Your task to perform on an android device: toggle translation in the chrome app Image 0: 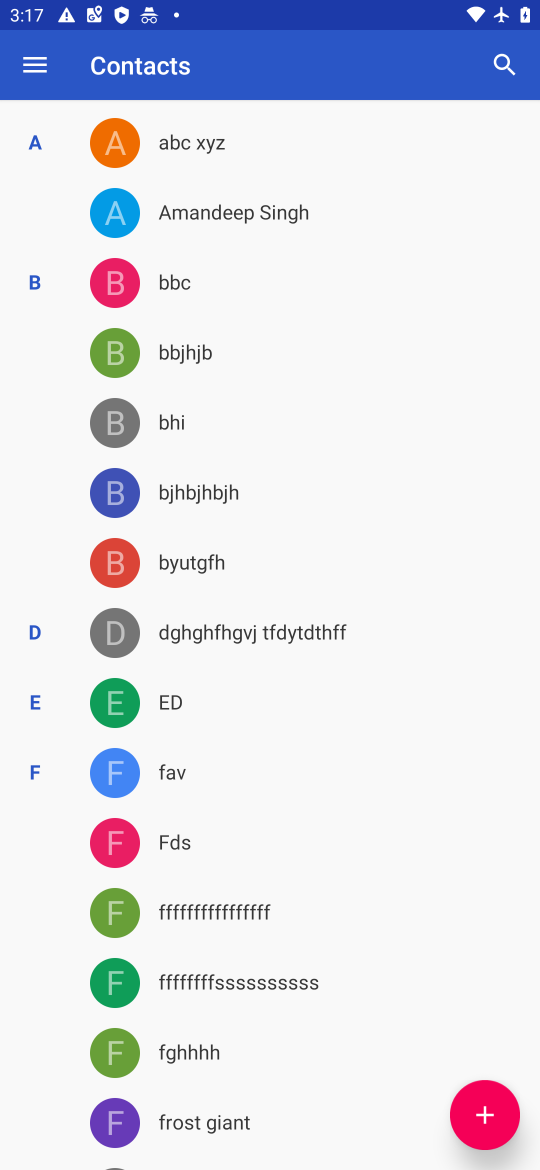
Step 0: press back button
Your task to perform on an android device: toggle translation in the chrome app Image 1: 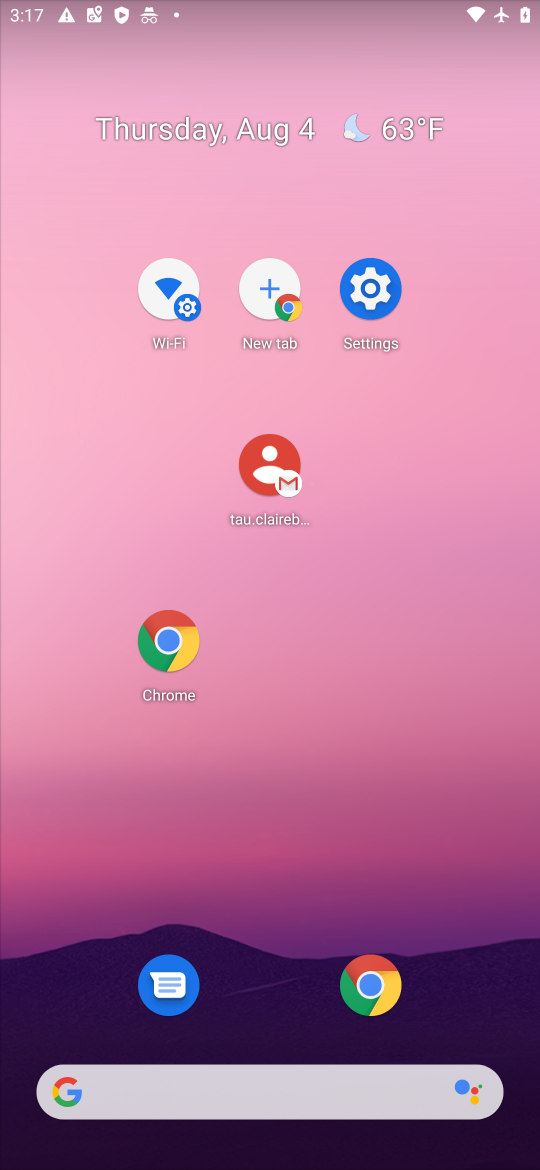
Step 1: press home button
Your task to perform on an android device: toggle translation in the chrome app Image 2: 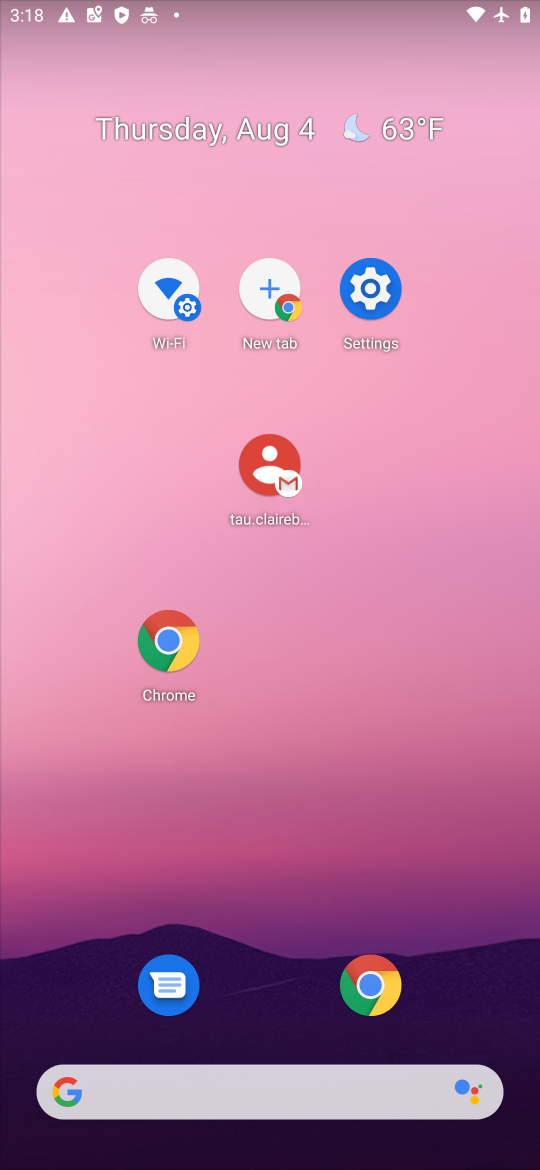
Step 2: drag from (256, 501) to (239, 263)
Your task to perform on an android device: toggle translation in the chrome app Image 3: 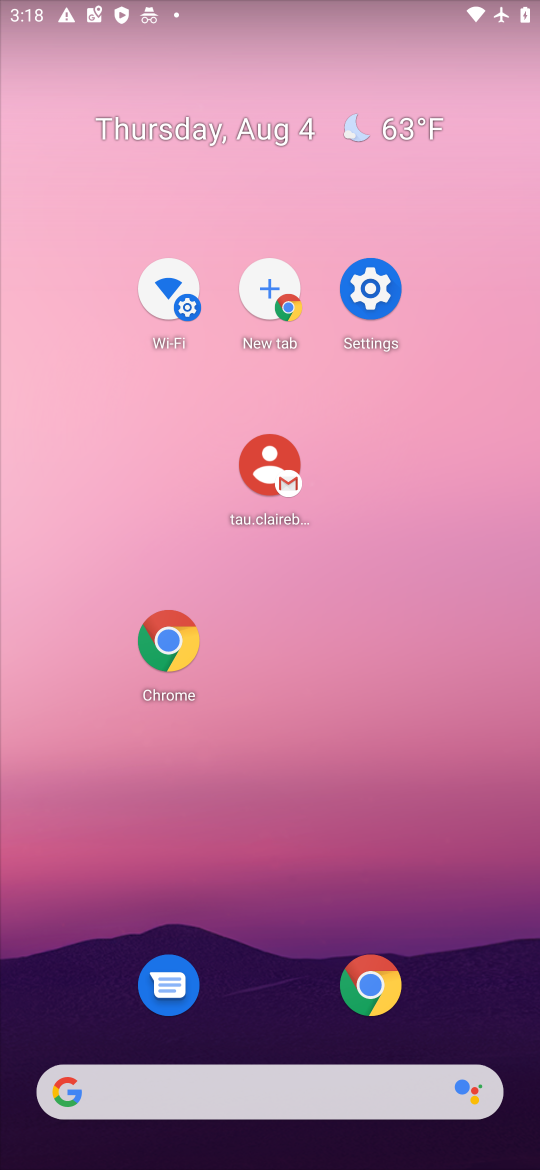
Step 3: drag from (177, 765) to (180, 530)
Your task to perform on an android device: toggle translation in the chrome app Image 4: 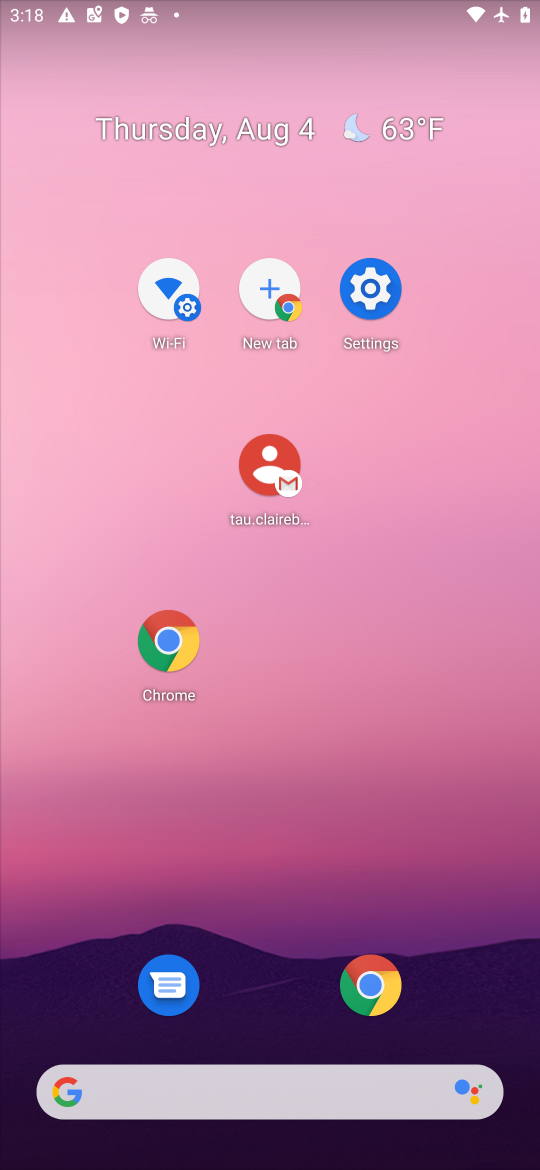
Step 4: drag from (336, 1007) to (315, 196)
Your task to perform on an android device: toggle translation in the chrome app Image 5: 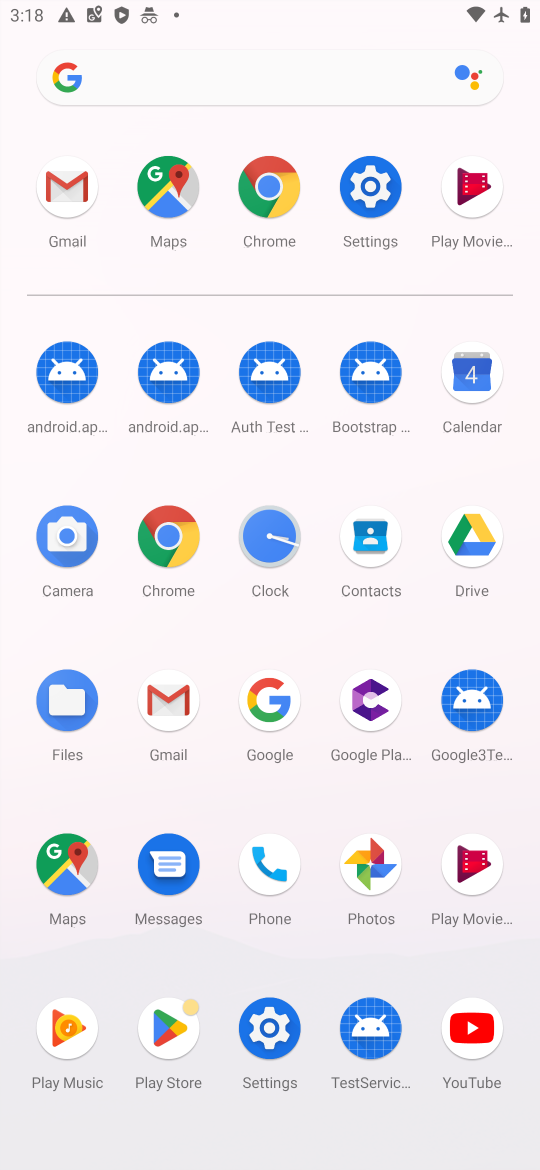
Step 5: click (279, 177)
Your task to perform on an android device: toggle translation in the chrome app Image 6: 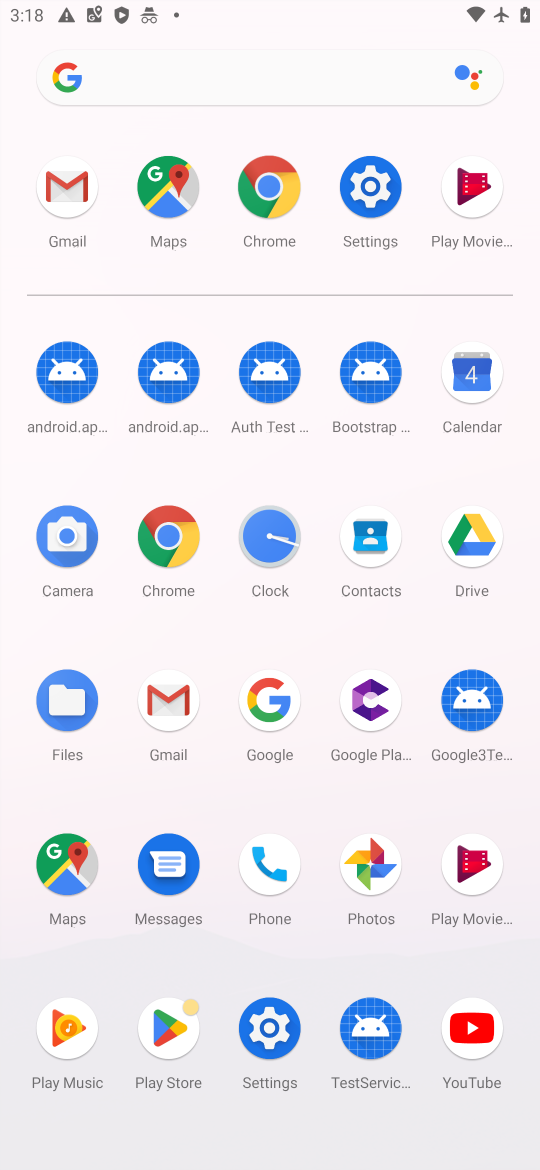
Step 6: click (278, 177)
Your task to perform on an android device: toggle translation in the chrome app Image 7: 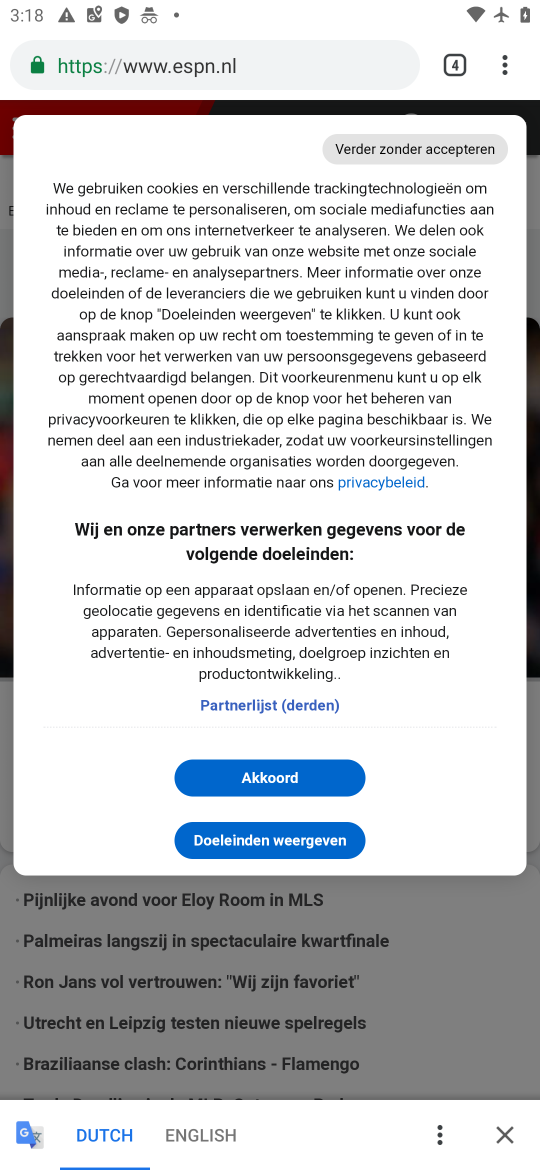
Step 7: press back button
Your task to perform on an android device: toggle translation in the chrome app Image 8: 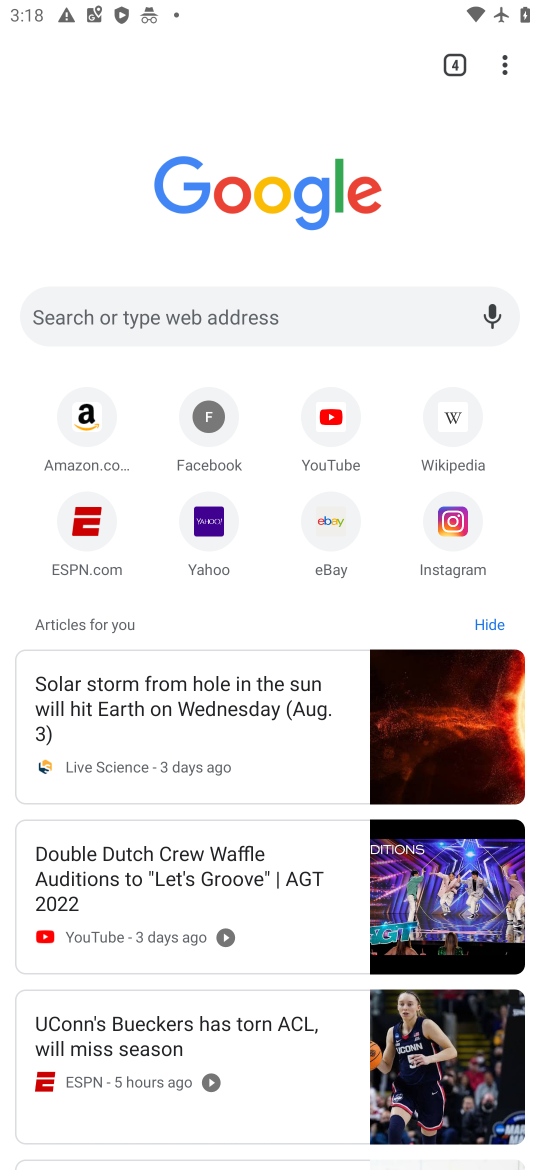
Step 8: click (498, 79)
Your task to perform on an android device: toggle translation in the chrome app Image 9: 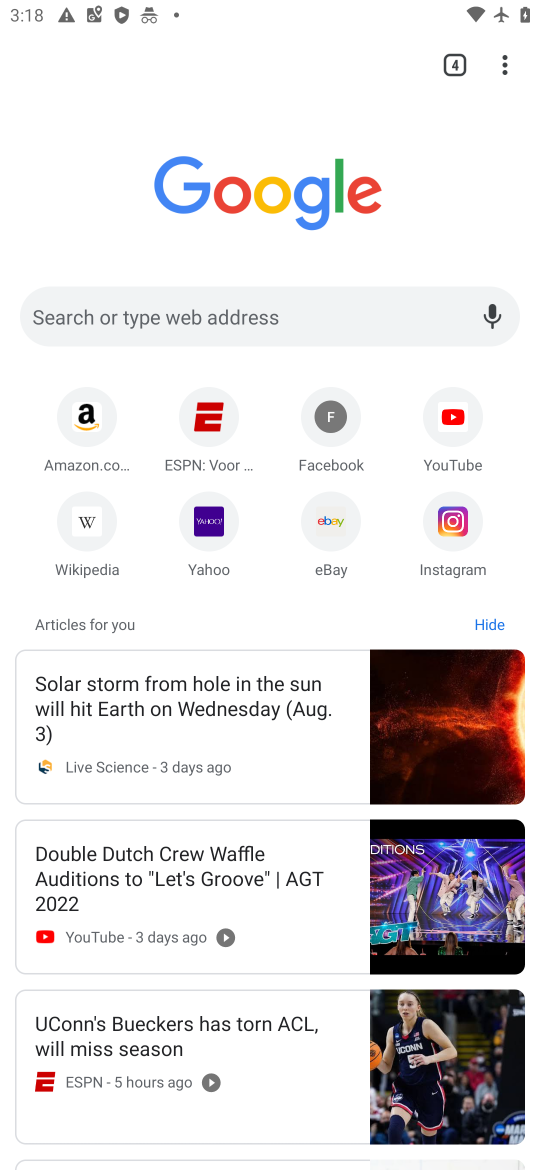
Step 9: drag from (502, 55) to (245, 559)
Your task to perform on an android device: toggle translation in the chrome app Image 10: 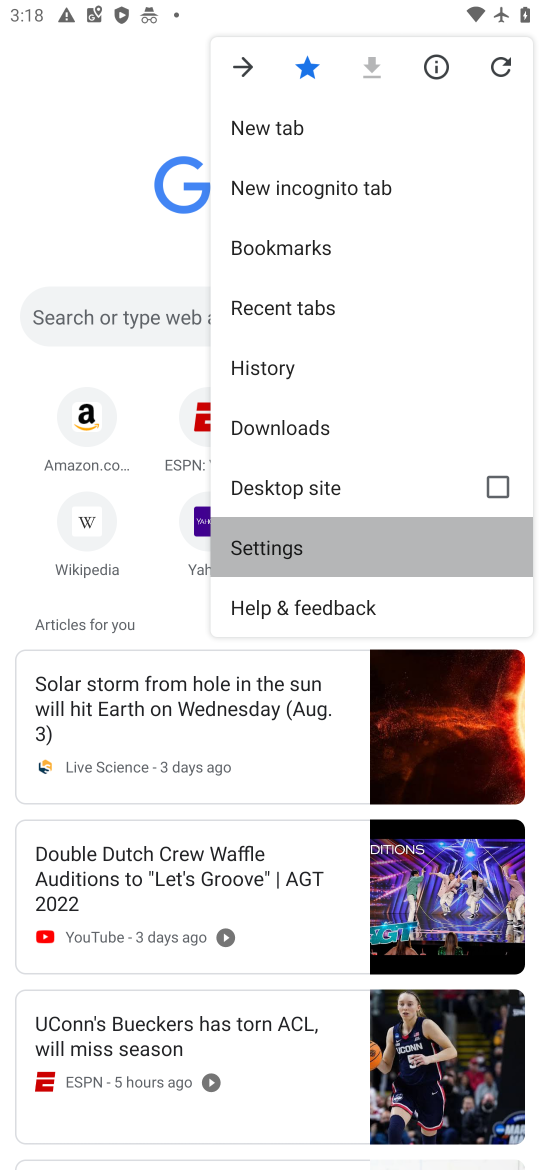
Step 10: click (246, 561)
Your task to perform on an android device: toggle translation in the chrome app Image 11: 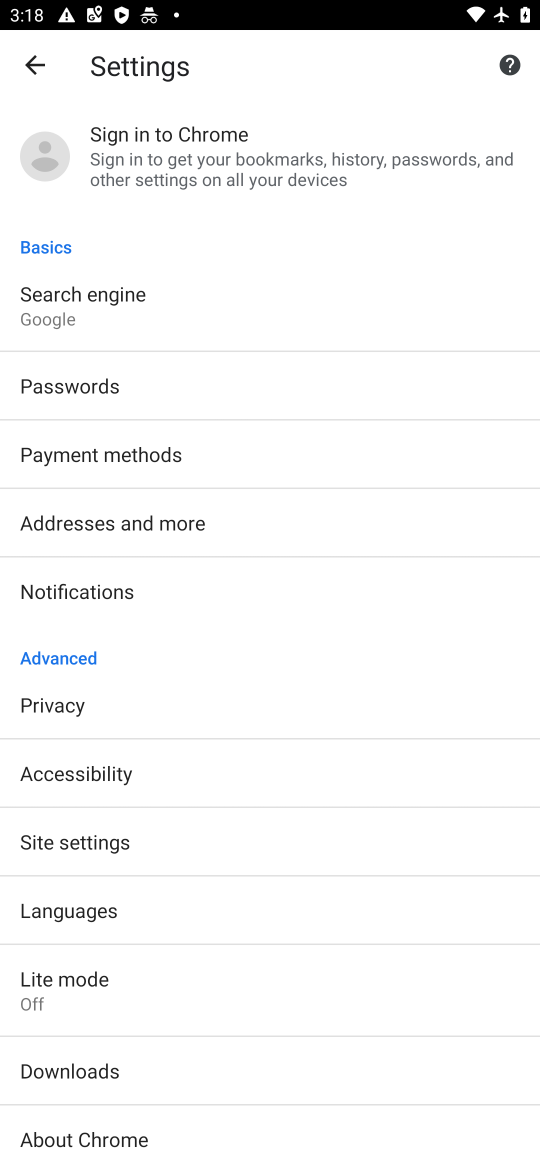
Step 11: click (90, 926)
Your task to perform on an android device: toggle translation in the chrome app Image 12: 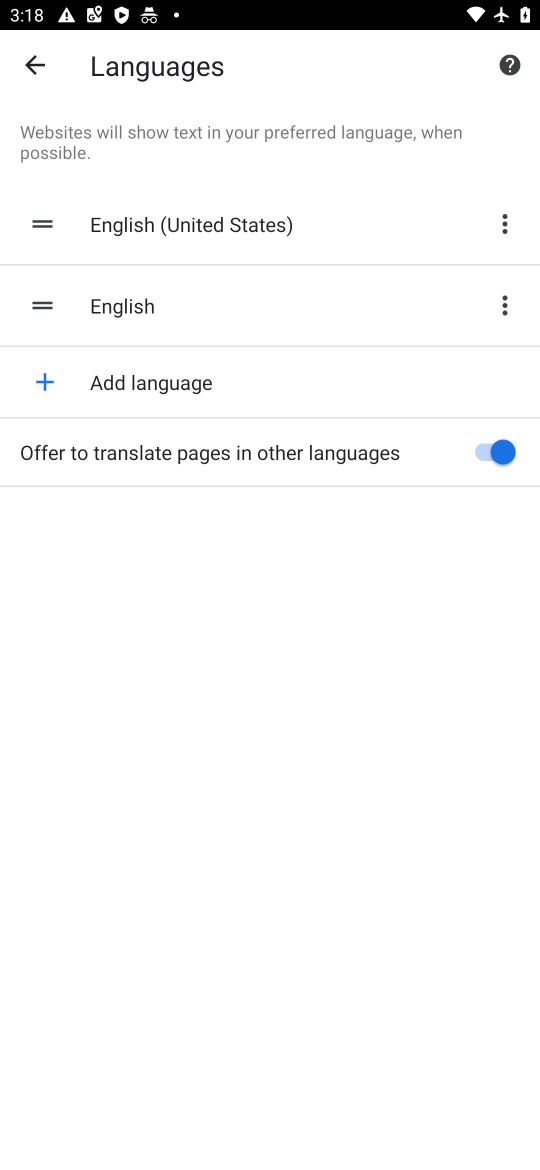
Step 12: click (495, 448)
Your task to perform on an android device: toggle translation in the chrome app Image 13: 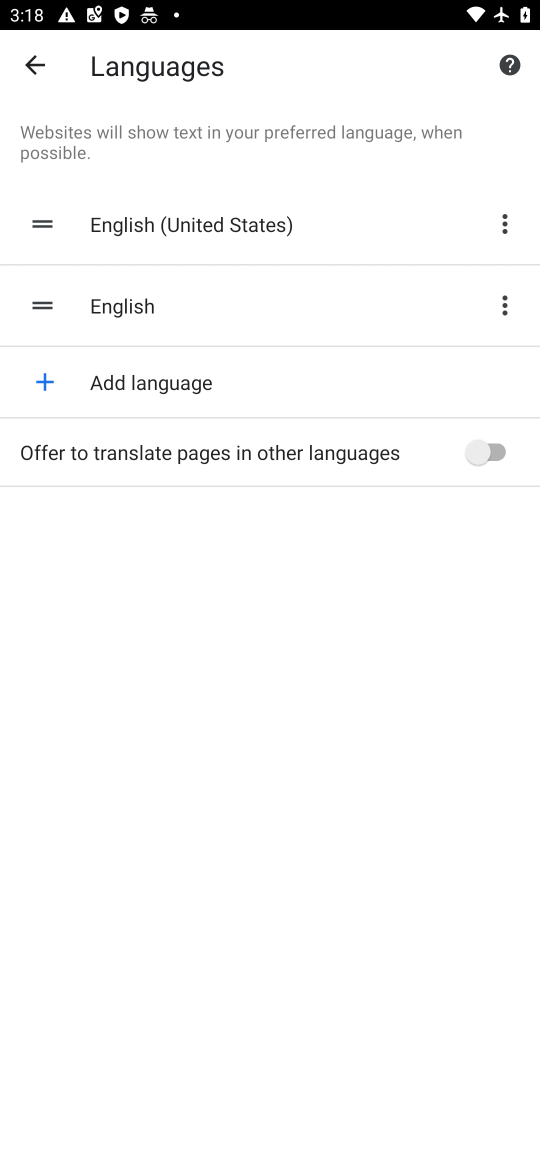
Step 13: task complete